Your task to perform on an android device: Open settings Image 0: 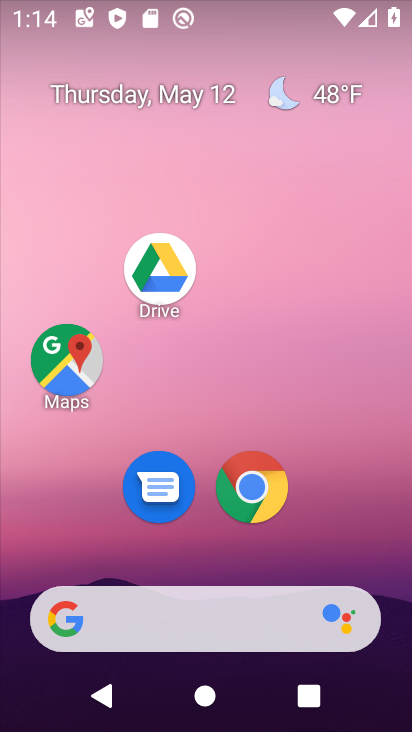
Step 0: drag from (220, 584) to (136, 4)
Your task to perform on an android device: Open settings Image 1: 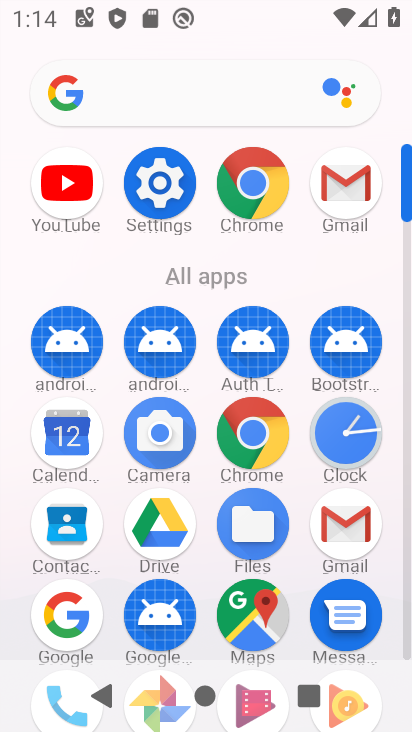
Step 1: click (142, 180)
Your task to perform on an android device: Open settings Image 2: 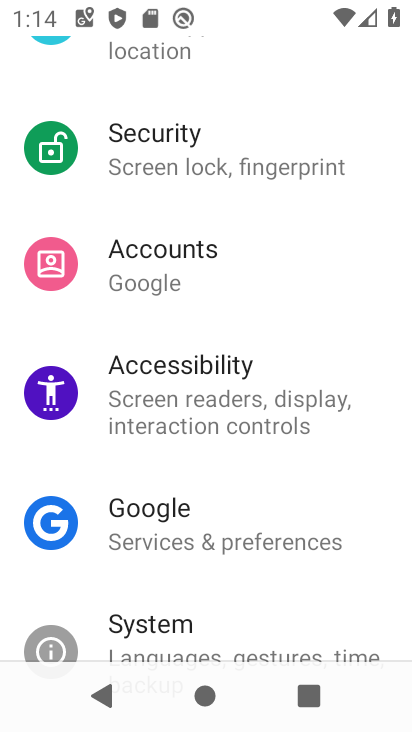
Step 2: task complete